Your task to perform on an android device: see creations saved in the google photos Image 0: 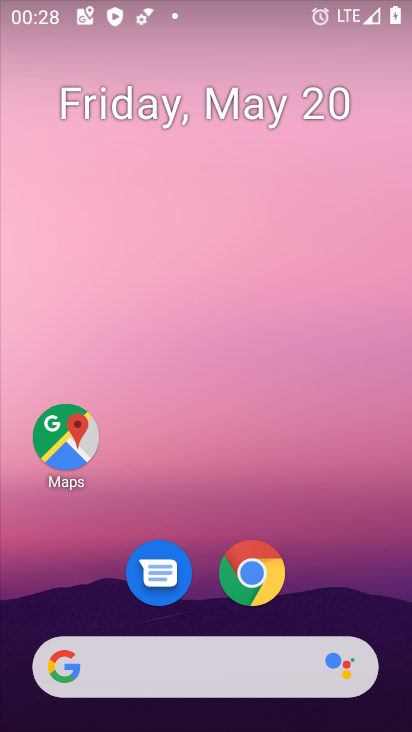
Step 0: drag from (201, 611) to (206, 232)
Your task to perform on an android device: see creations saved in the google photos Image 1: 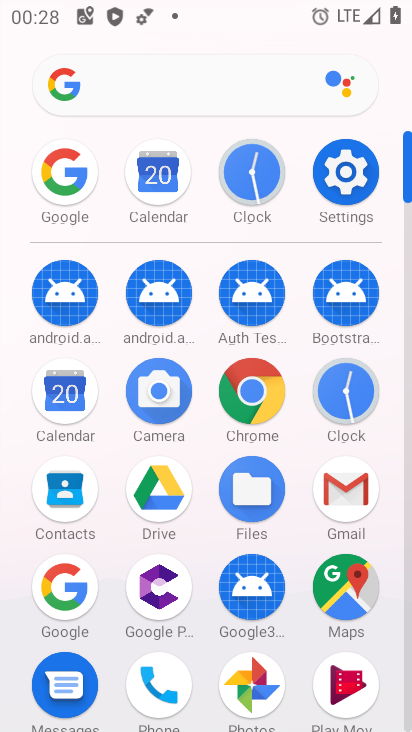
Step 1: click (252, 685)
Your task to perform on an android device: see creations saved in the google photos Image 2: 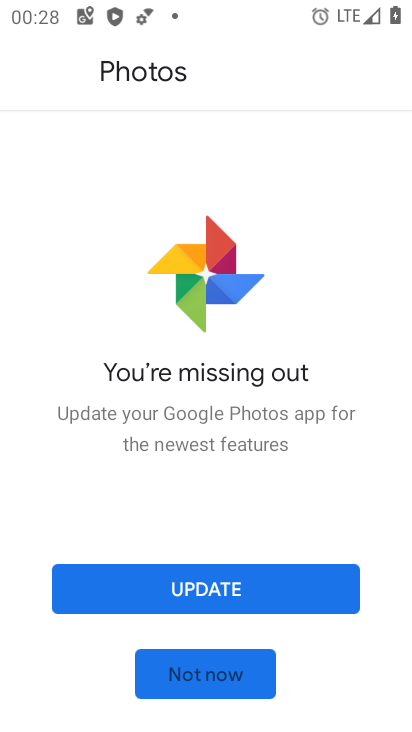
Step 2: click (213, 664)
Your task to perform on an android device: see creations saved in the google photos Image 3: 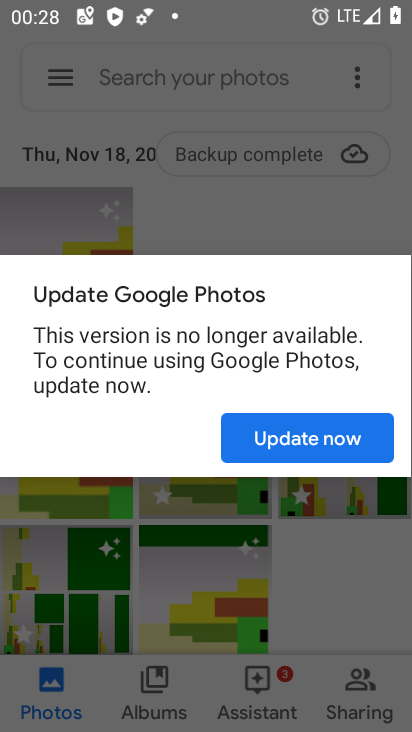
Step 3: click (263, 432)
Your task to perform on an android device: see creations saved in the google photos Image 4: 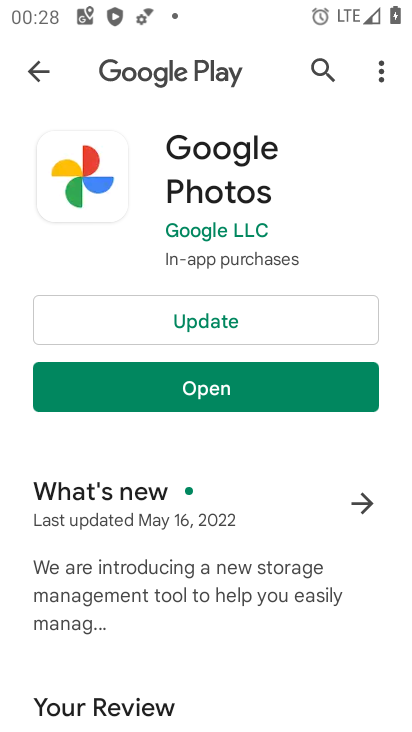
Step 4: click (245, 386)
Your task to perform on an android device: see creations saved in the google photos Image 5: 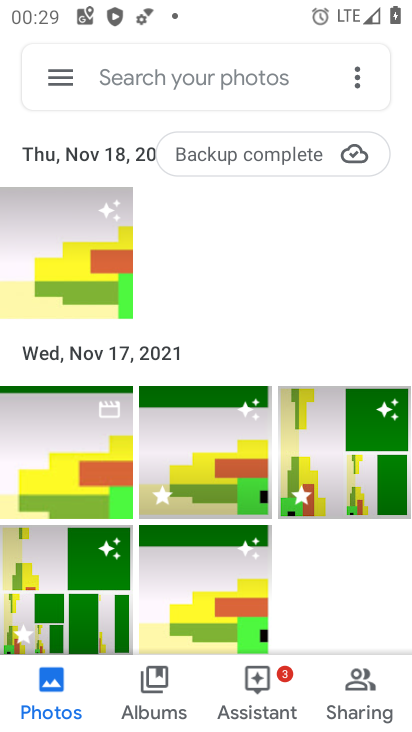
Step 5: click (184, 90)
Your task to perform on an android device: see creations saved in the google photos Image 6: 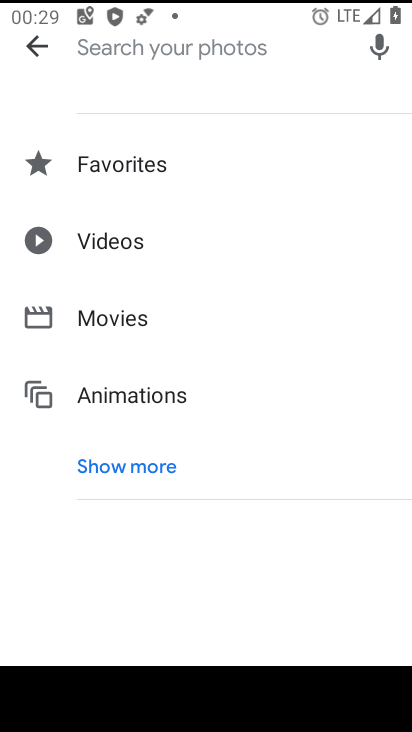
Step 6: click (175, 467)
Your task to perform on an android device: see creations saved in the google photos Image 7: 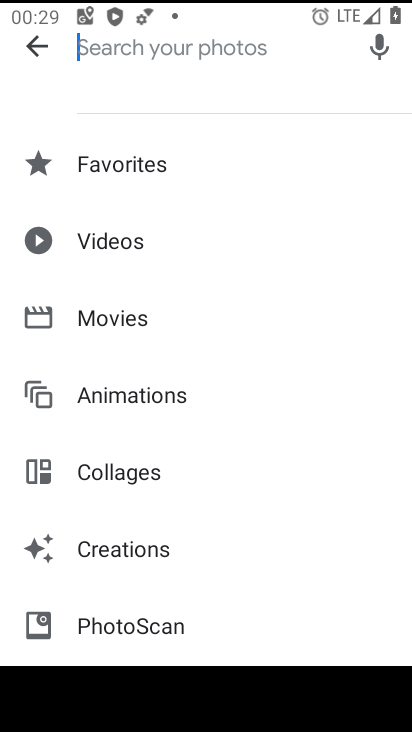
Step 7: click (146, 560)
Your task to perform on an android device: see creations saved in the google photos Image 8: 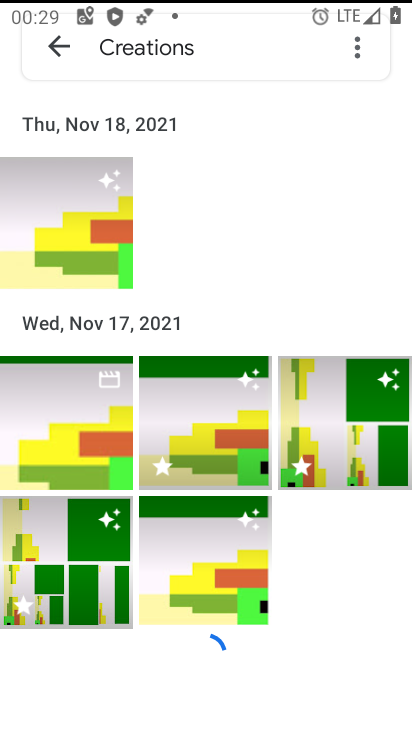
Step 8: task complete